Your task to perform on an android device: change the clock style Image 0: 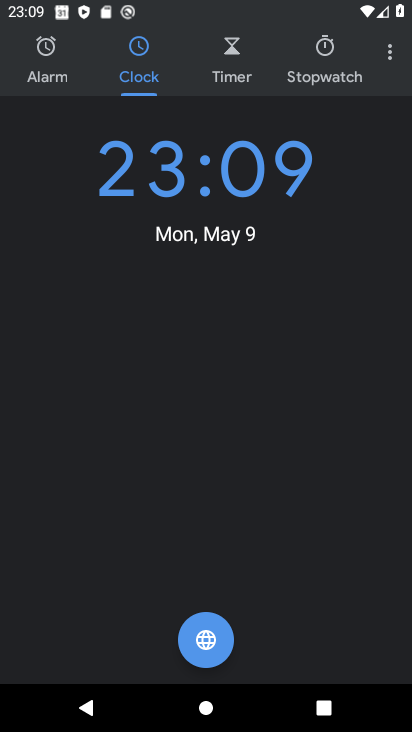
Step 0: click (391, 55)
Your task to perform on an android device: change the clock style Image 1: 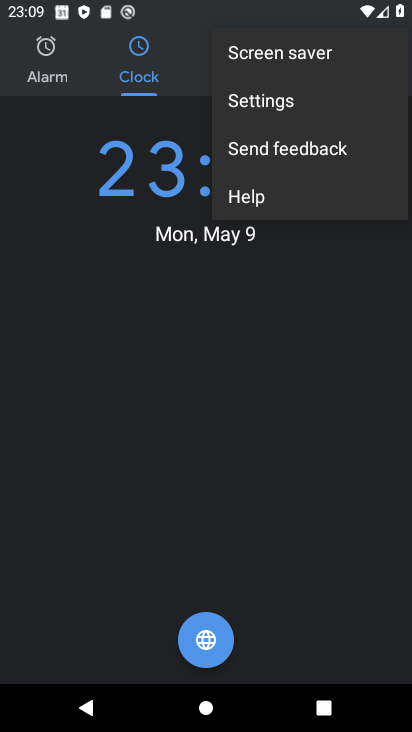
Step 1: click (282, 101)
Your task to perform on an android device: change the clock style Image 2: 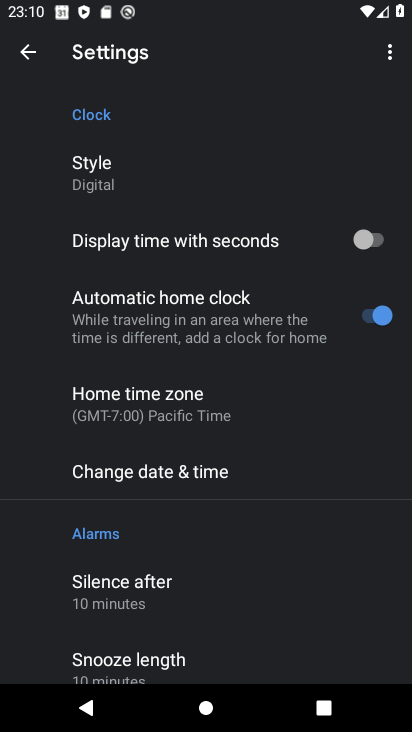
Step 2: click (89, 178)
Your task to perform on an android device: change the clock style Image 3: 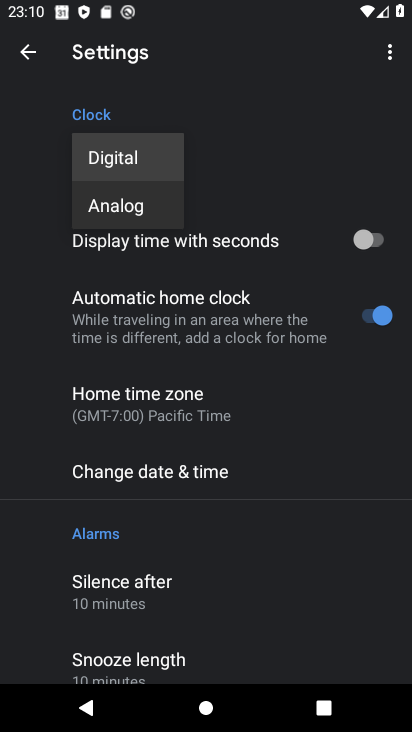
Step 3: click (113, 208)
Your task to perform on an android device: change the clock style Image 4: 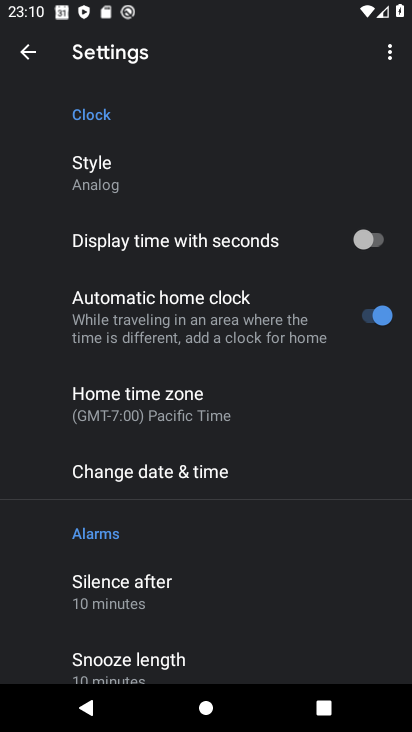
Step 4: task complete